Your task to perform on an android device: Do I have any events today? Image 0: 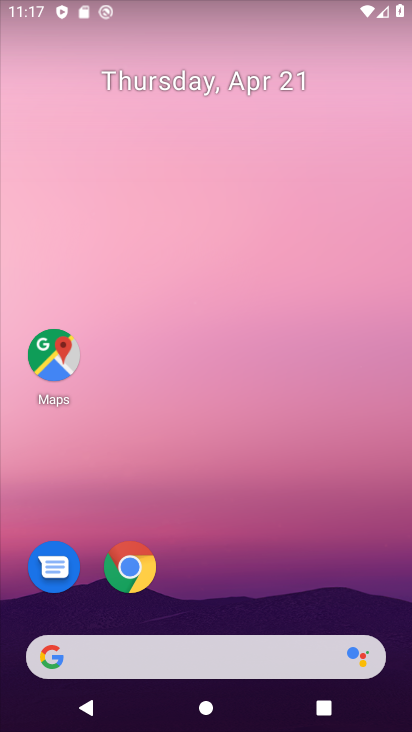
Step 0: drag from (348, 563) to (358, 131)
Your task to perform on an android device: Do I have any events today? Image 1: 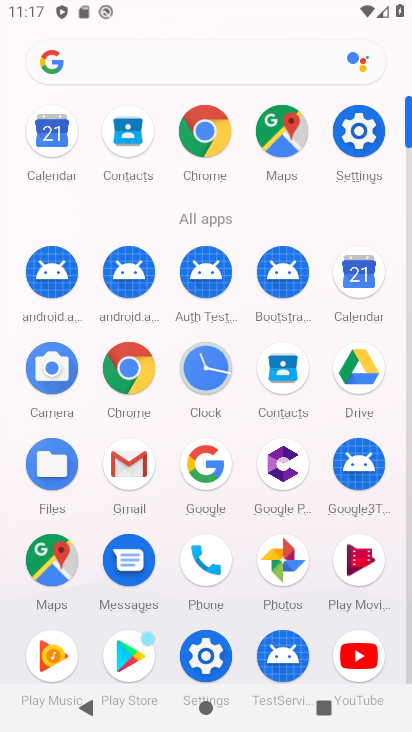
Step 1: click (363, 288)
Your task to perform on an android device: Do I have any events today? Image 2: 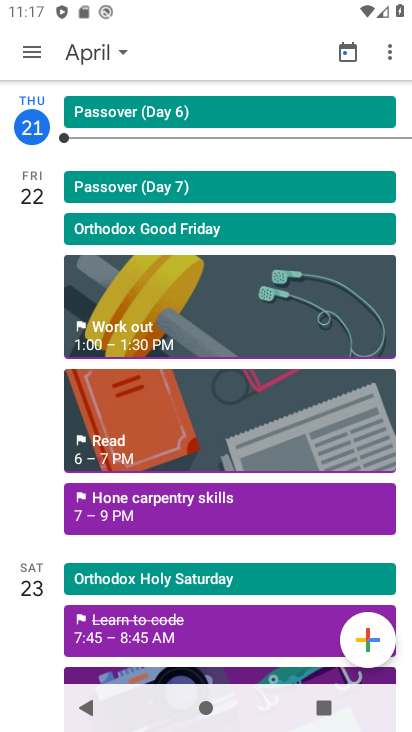
Step 2: task complete